Your task to perform on an android device: Do I have any events tomorrow? Image 0: 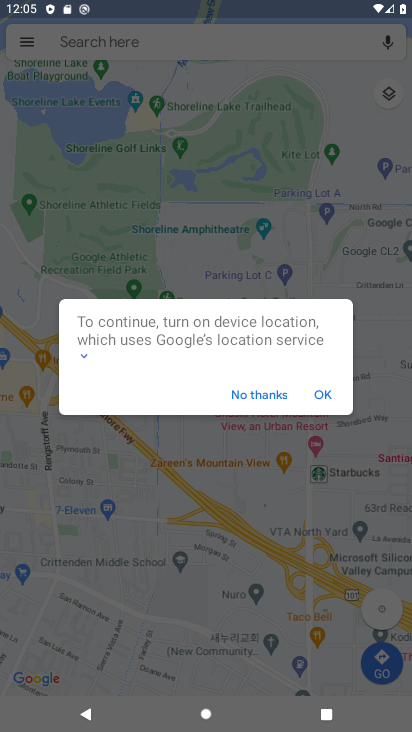
Step 0: click (285, 395)
Your task to perform on an android device: Do I have any events tomorrow? Image 1: 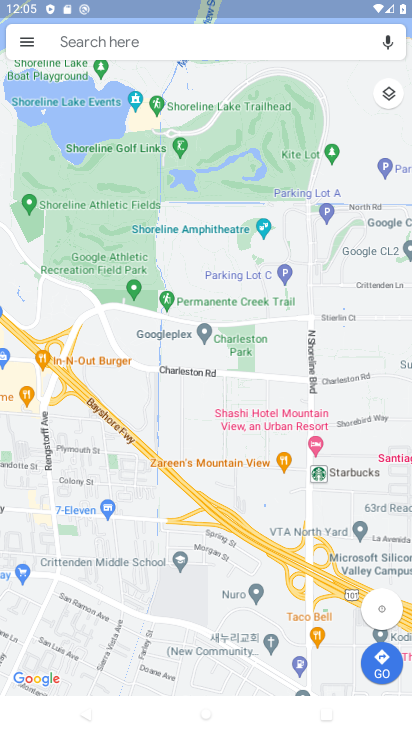
Step 1: press back button
Your task to perform on an android device: Do I have any events tomorrow? Image 2: 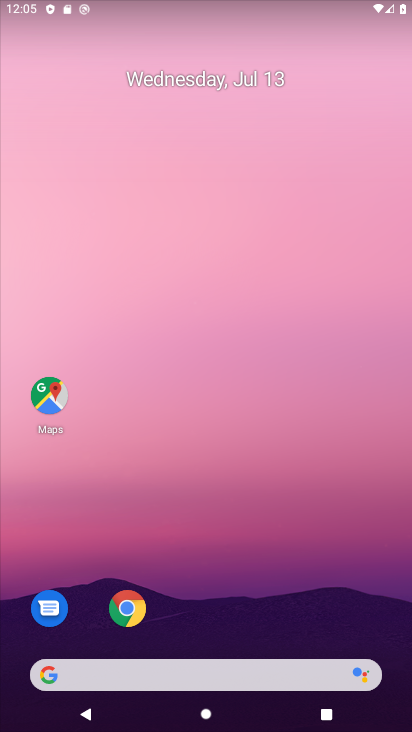
Step 2: drag from (203, 586) to (261, 2)
Your task to perform on an android device: Do I have any events tomorrow? Image 3: 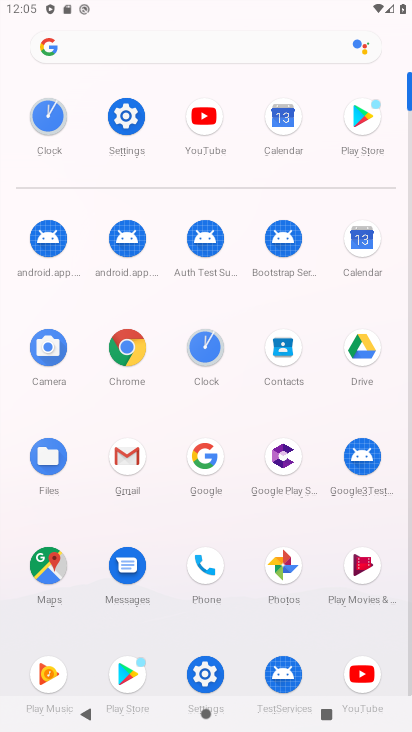
Step 3: click (362, 242)
Your task to perform on an android device: Do I have any events tomorrow? Image 4: 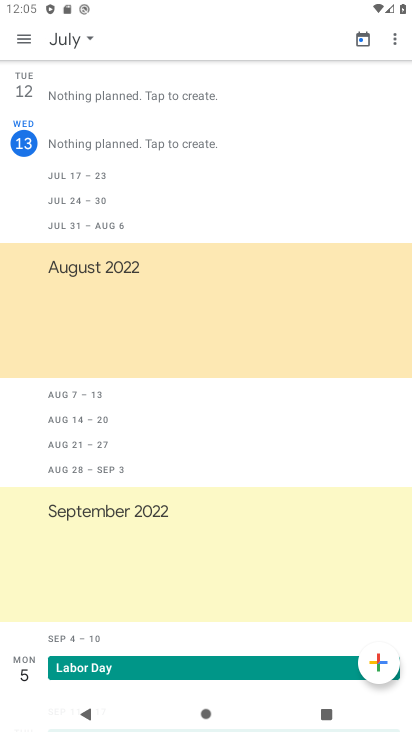
Step 4: task complete